Your task to perform on an android device: Show me productivity apps on the Play Store Image 0: 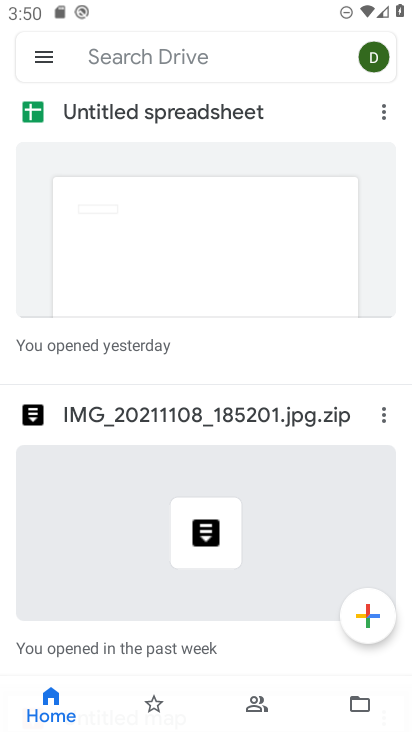
Step 0: press home button
Your task to perform on an android device: Show me productivity apps on the Play Store Image 1: 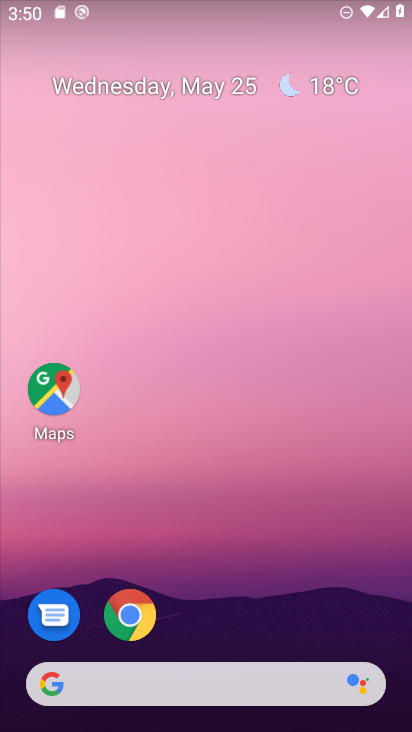
Step 1: drag from (280, 594) to (301, 51)
Your task to perform on an android device: Show me productivity apps on the Play Store Image 2: 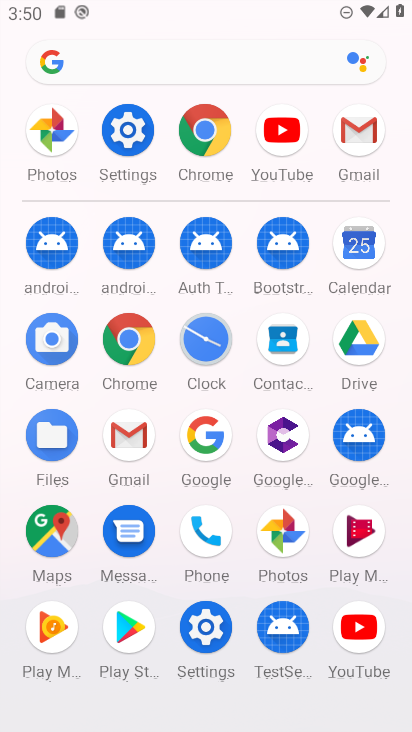
Step 2: click (132, 618)
Your task to perform on an android device: Show me productivity apps on the Play Store Image 3: 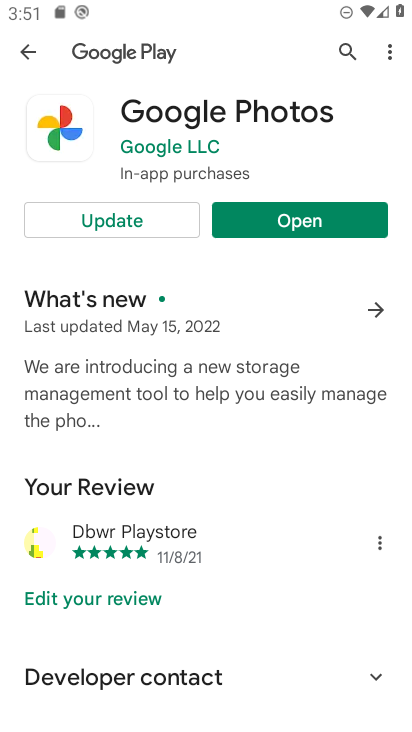
Step 3: press back button
Your task to perform on an android device: Show me productivity apps on the Play Store Image 4: 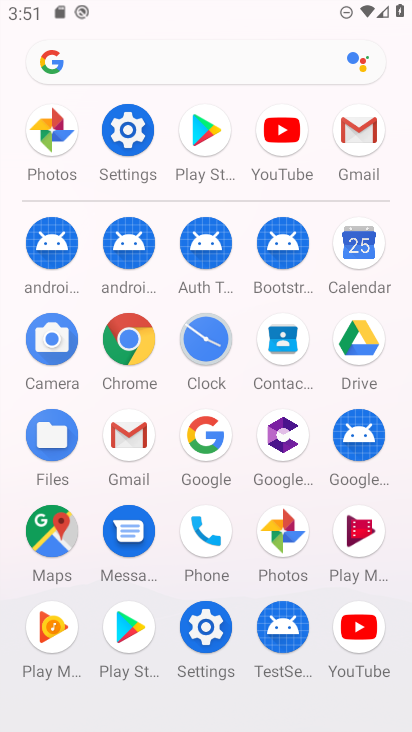
Step 4: click (130, 612)
Your task to perform on an android device: Show me productivity apps on the Play Store Image 5: 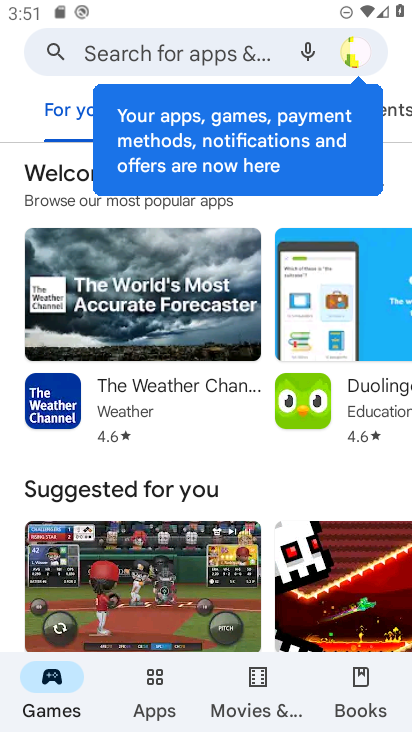
Step 5: click (162, 684)
Your task to perform on an android device: Show me productivity apps on the Play Store Image 6: 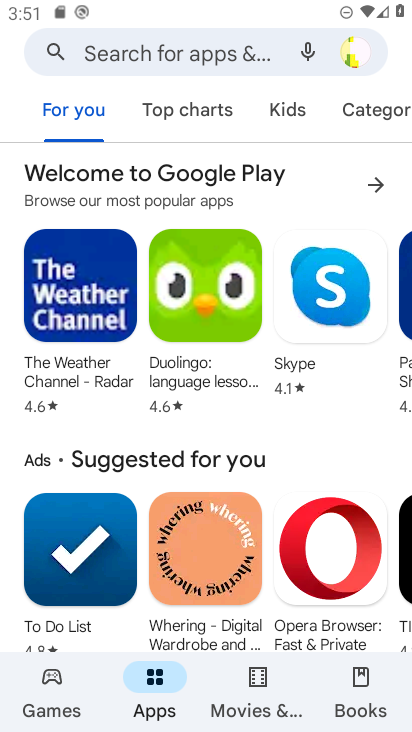
Step 6: click (382, 111)
Your task to perform on an android device: Show me productivity apps on the Play Store Image 7: 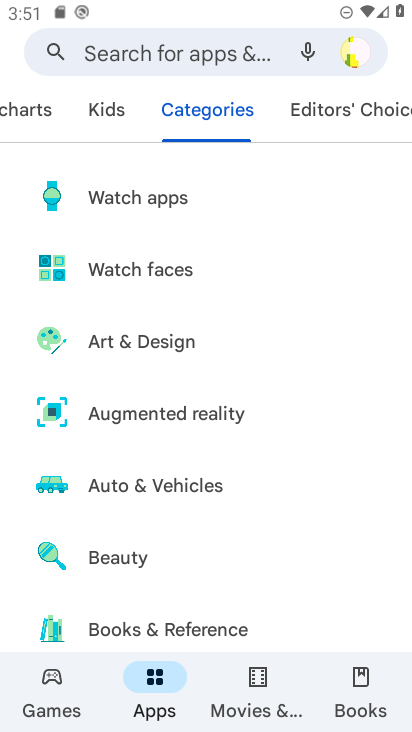
Step 7: drag from (225, 510) to (272, 2)
Your task to perform on an android device: Show me productivity apps on the Play Store Image 8: 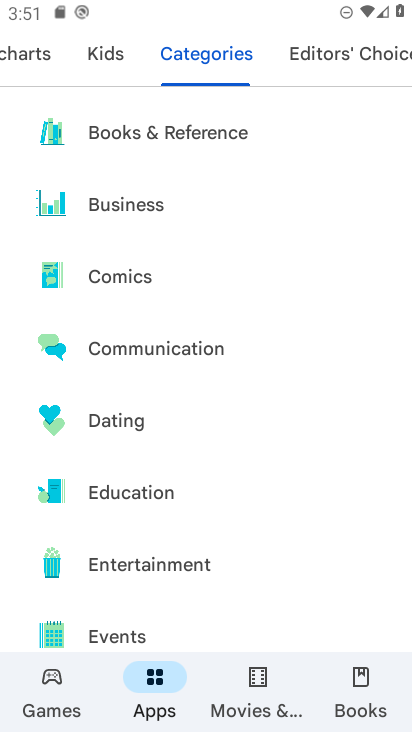
Step 8: drag from (242, 602) to (294, 10)
Your task to perform on an android device: Show me productivity apps on the Play Store Image 9: 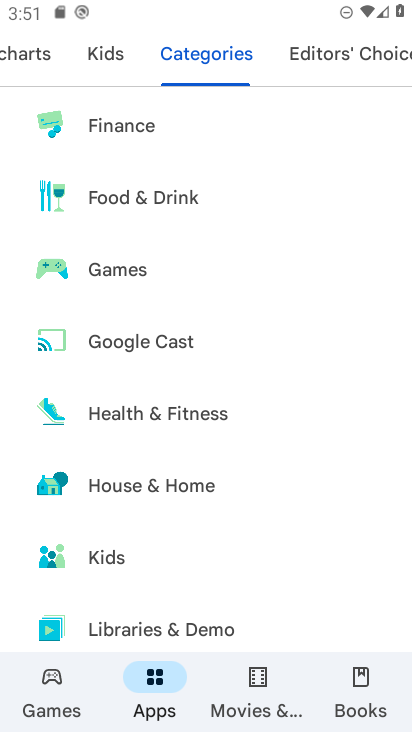
Step 9: drag from (187, 577) to (246, 12)
Your task to perform on an android device: Show me productivity apps on the Play Store Image 10: 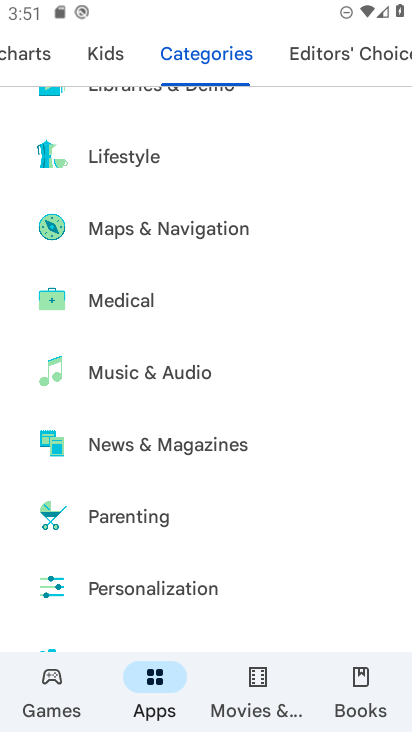
Step 10: drag from (220, 513) to (283, 101)
Your task to perform on an android device: Show me productivity apps on the Play Store Image 11: 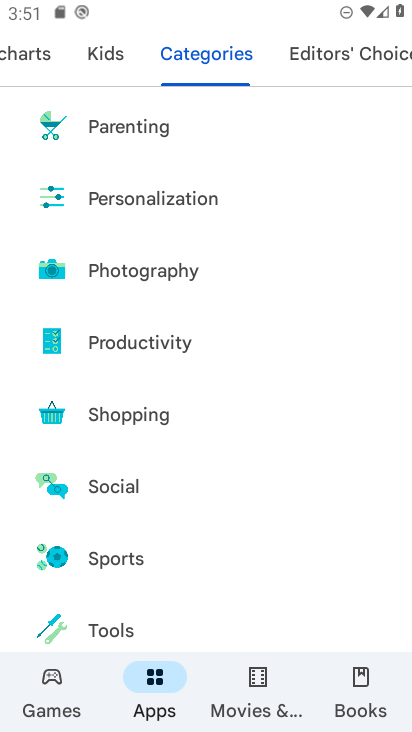
Step 11: click (193, 335)
Your task to perform on an android device: Show me productivity apps on the Play Store Image 12: 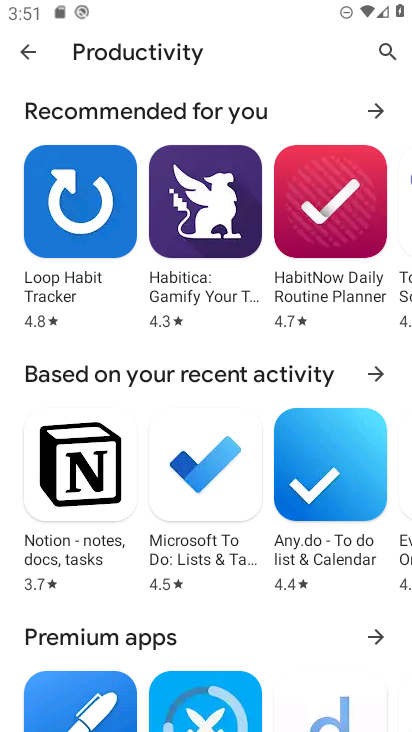
Step 12: task complete